Your task to perform on an android device: install app "Chime – Mobile Banking" Image 0: 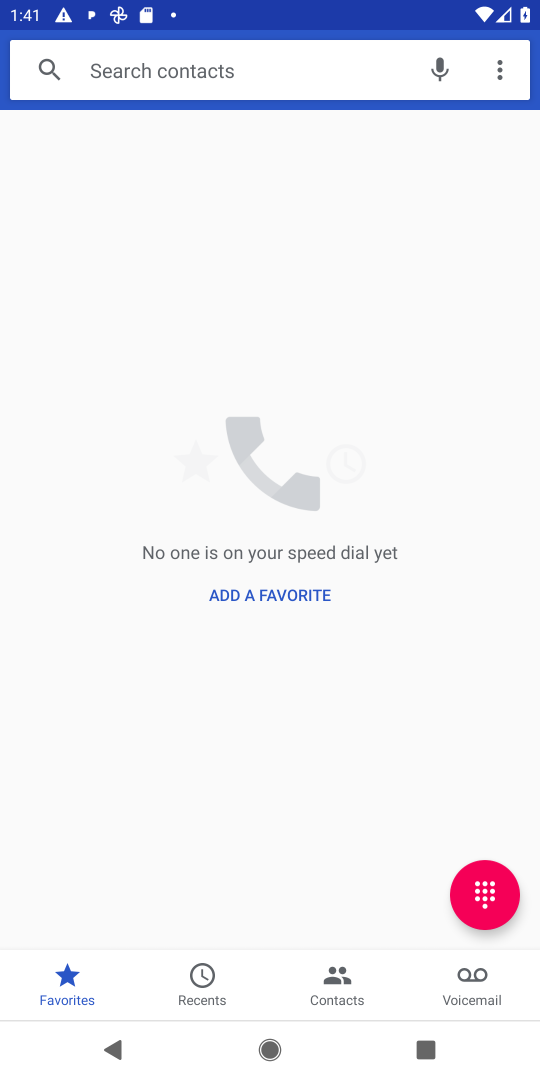
Step 0: press home button
Your task to perform on an android device: install app "Chime – Mobile Banking" Image 1: 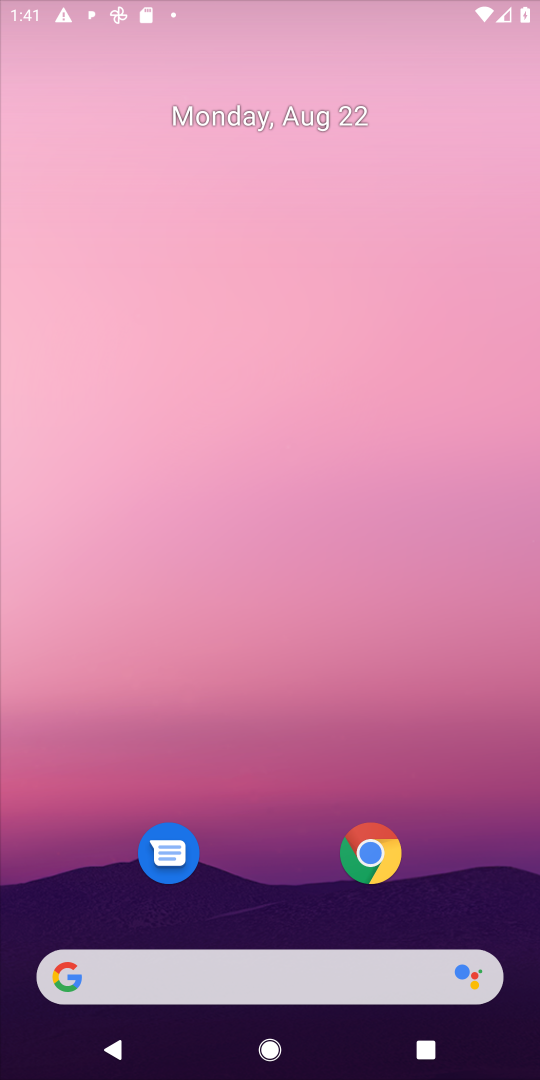
Step 1: drag from (272, 867) to (353, 201)
Your task to perform on an android device: install app "Chime – Mobile Banking" Image 2: 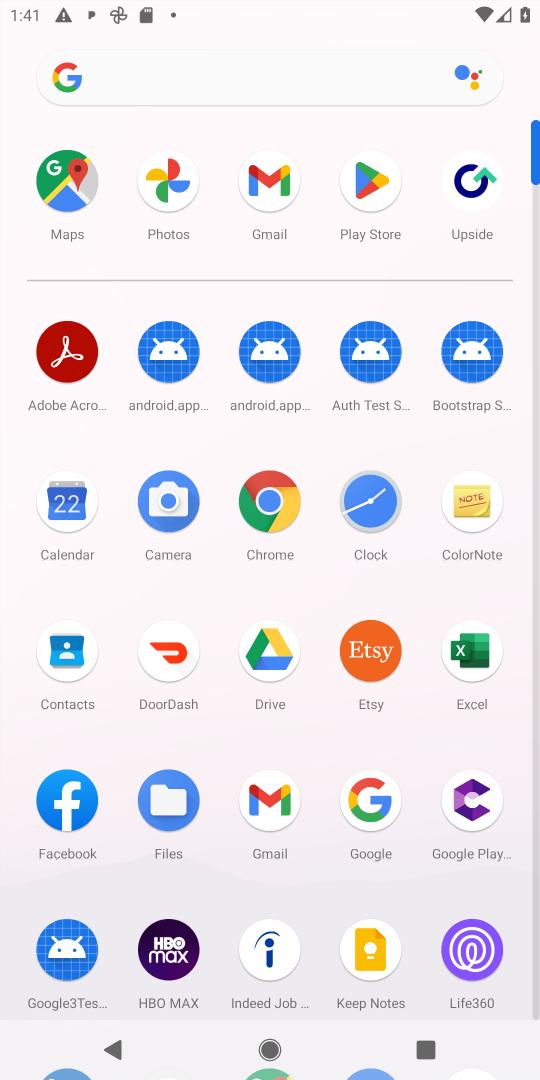
Step 2: click (357, 157)
Your task to perform on an android device: install app "Chime – Mobile Banking" Image 3: 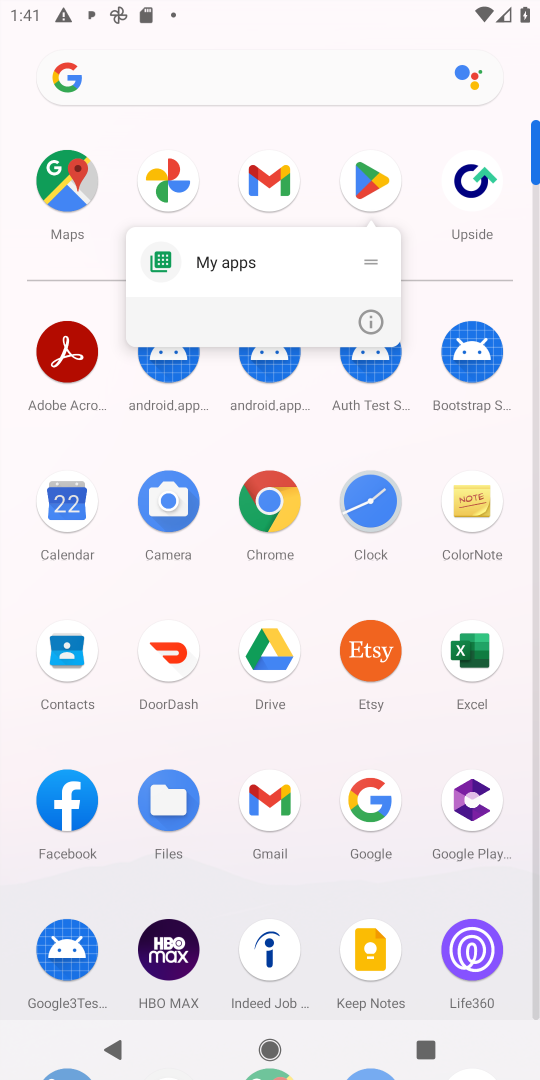
Step 3: click (357, 188)
Your task to perform on an android device: install app "Chime – Mobile Banking" Image 4: 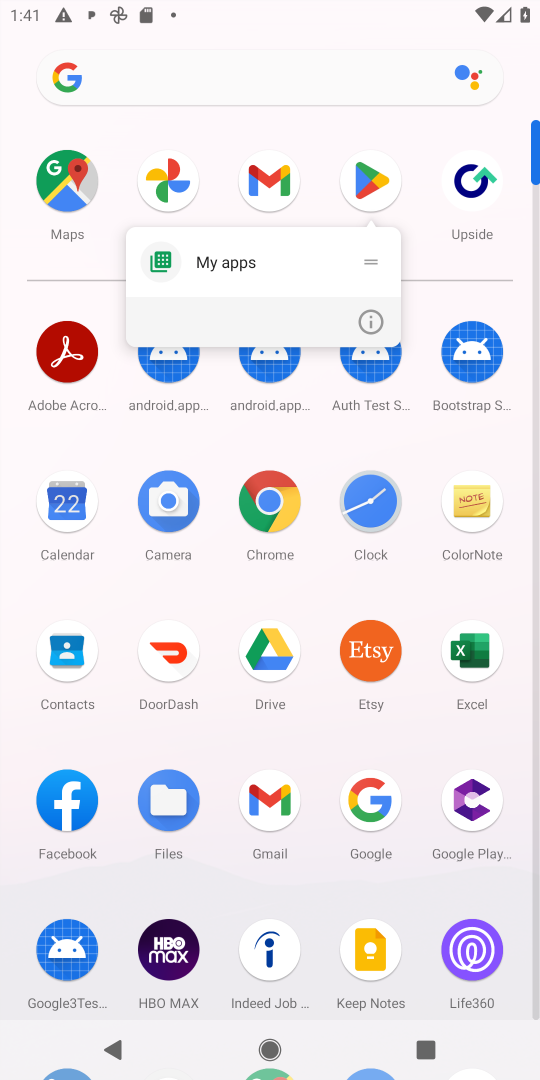
Step 4: click (362, 167)
Your task to perform on an android device: install app "Chime – Mobile Banking" Image 5: 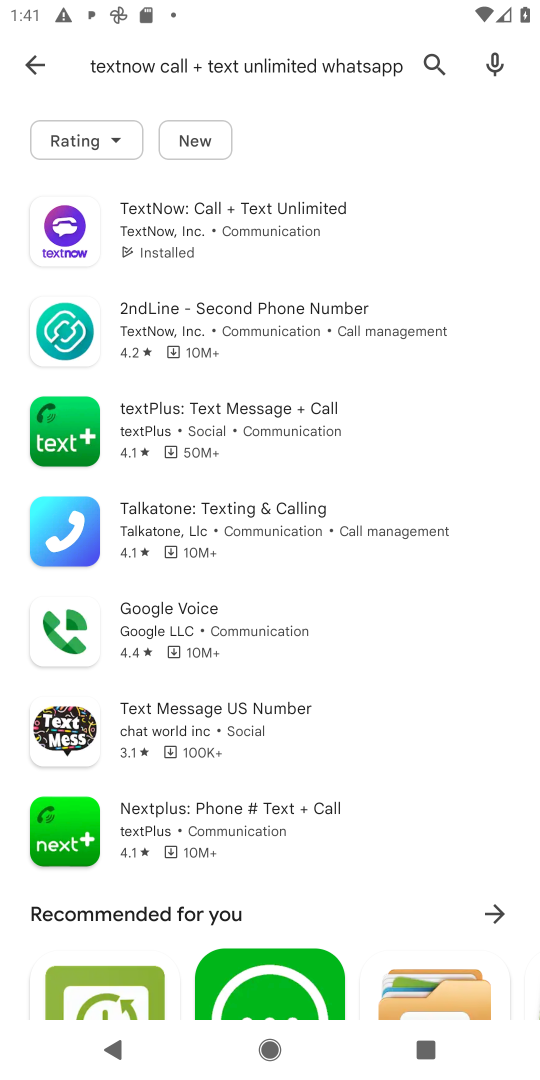
Step 5: click (48, 52)
Your task to perform on an android device: install app "Chime – Mobile Banking" Image 6: 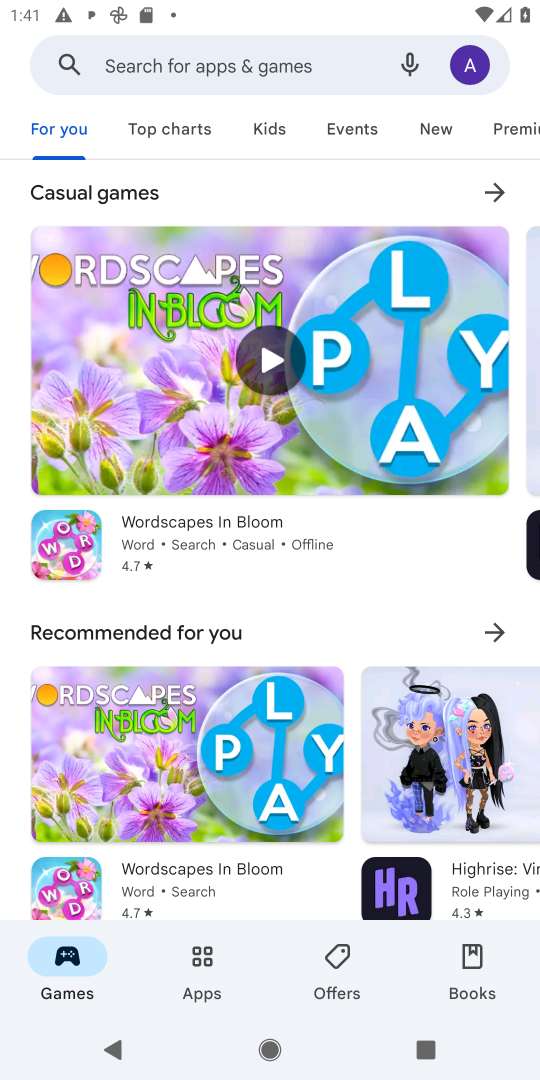
Step 6: click (128, 47)
Your task to perform on an android device: install app "Chime – Mobile Banking" Image 7: 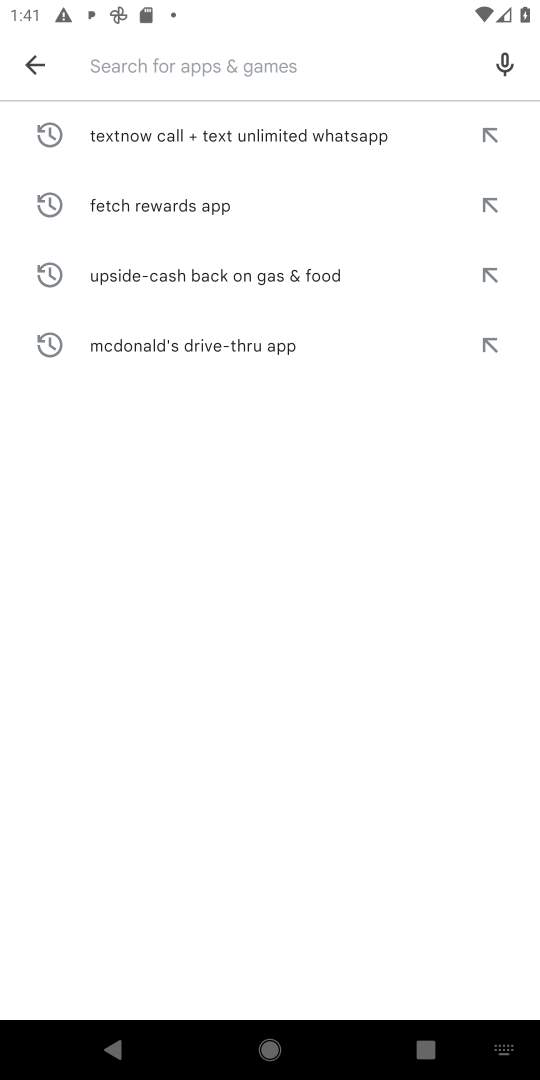
Step 7: type "chime"
Your task to perform on an android device: install app "Chime – Mobile Banking" Image 8: 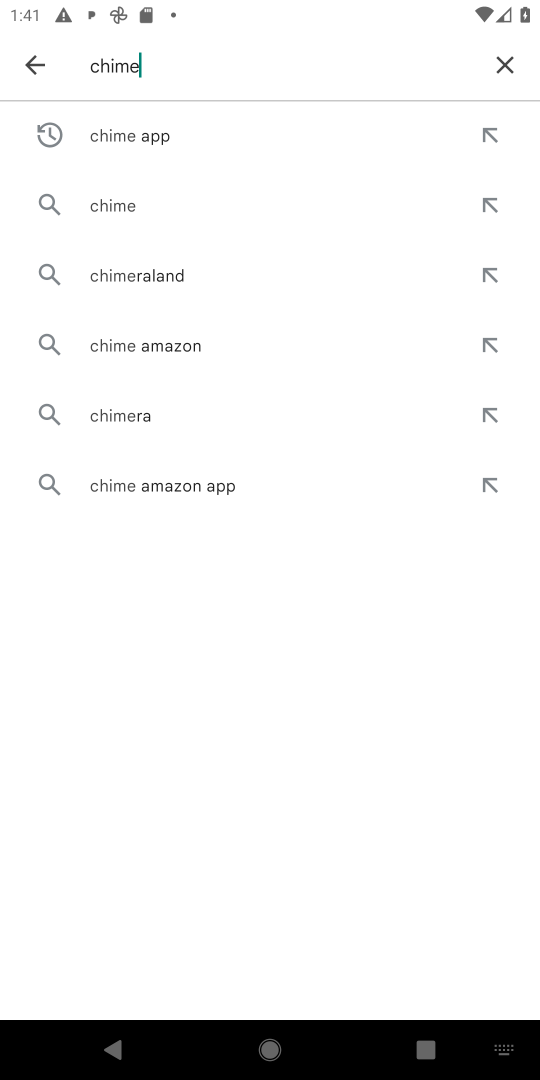
Step 8: click (168, 122)
Your task to perform on an android device: install app "Chime – Mobile Banking" Image 9: 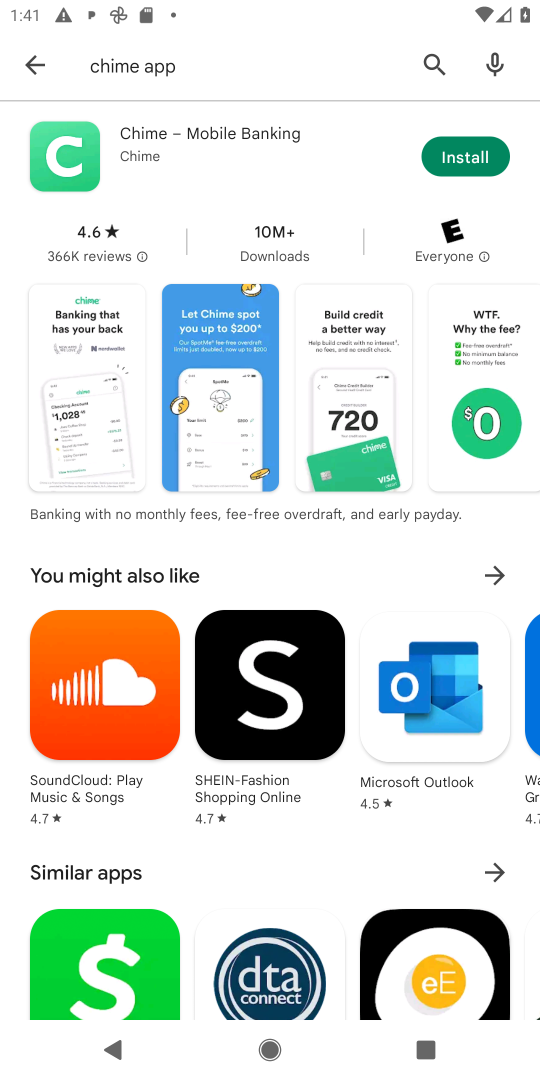
Step 9: click (464, 148)
Your task to perform on an android device: install app "Chime – Mobile Banking" Image 10: 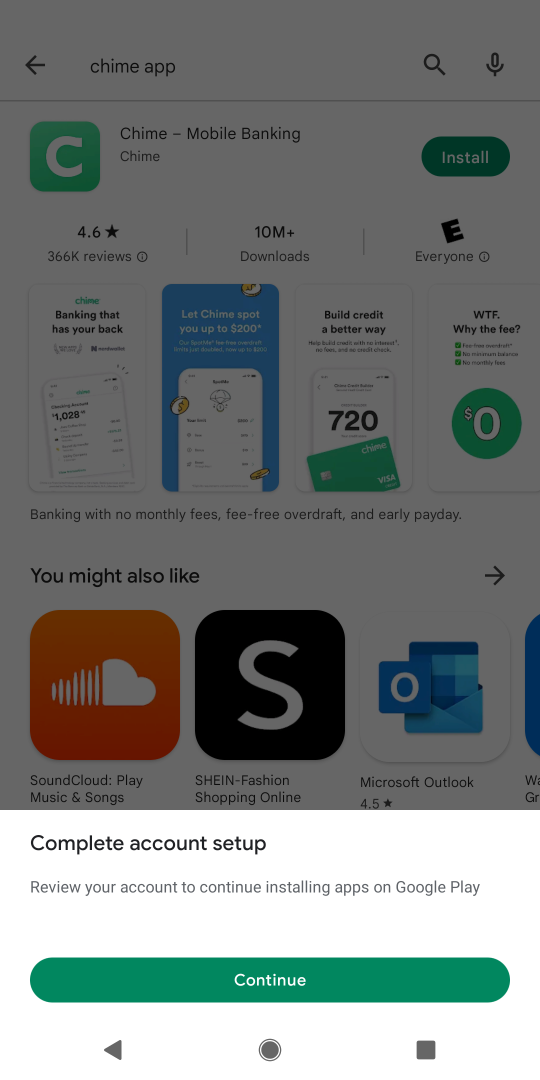
Step 10: task complete